Your task to perform on an android device: install app "McDonald's" Image 0: 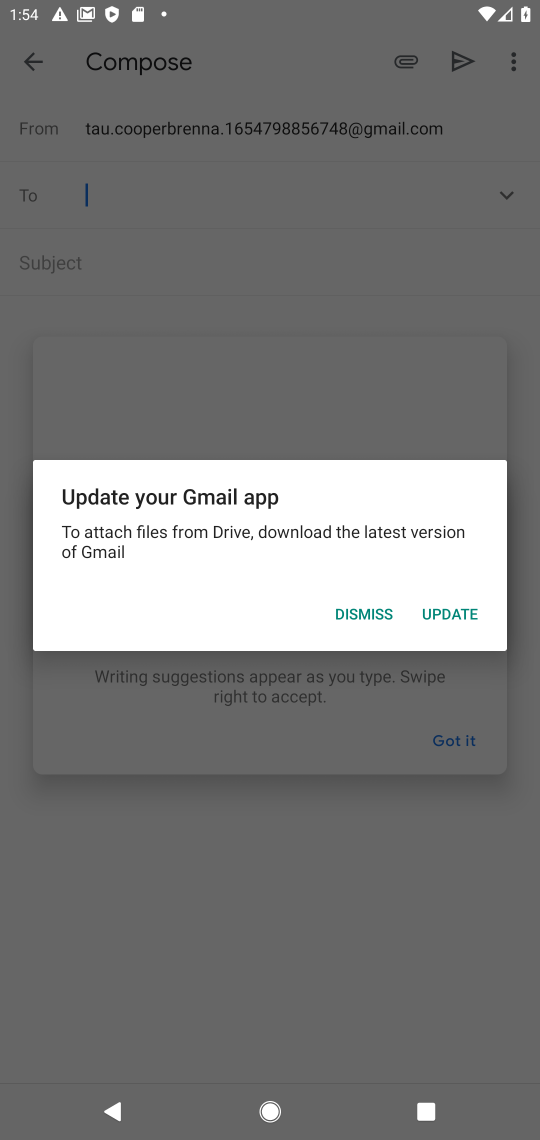
Step 0: press home button
Your task to perform on an android device: install app "McDonald's" Image 1: 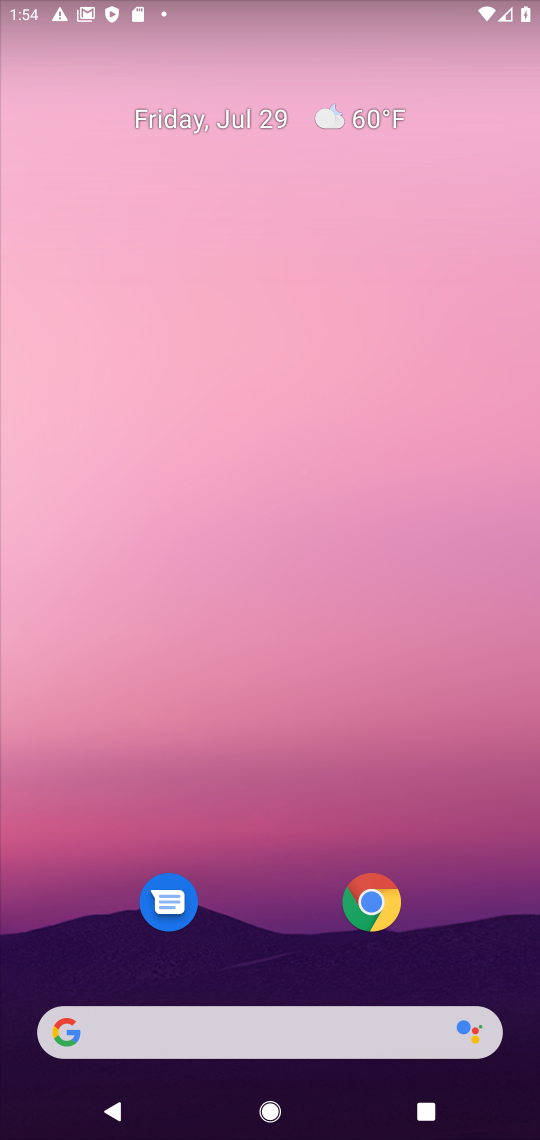
Step 1: drag from (325, 992) to (352, 141)
Your task to perform on an android device: install app "McDonald's" Image 2: 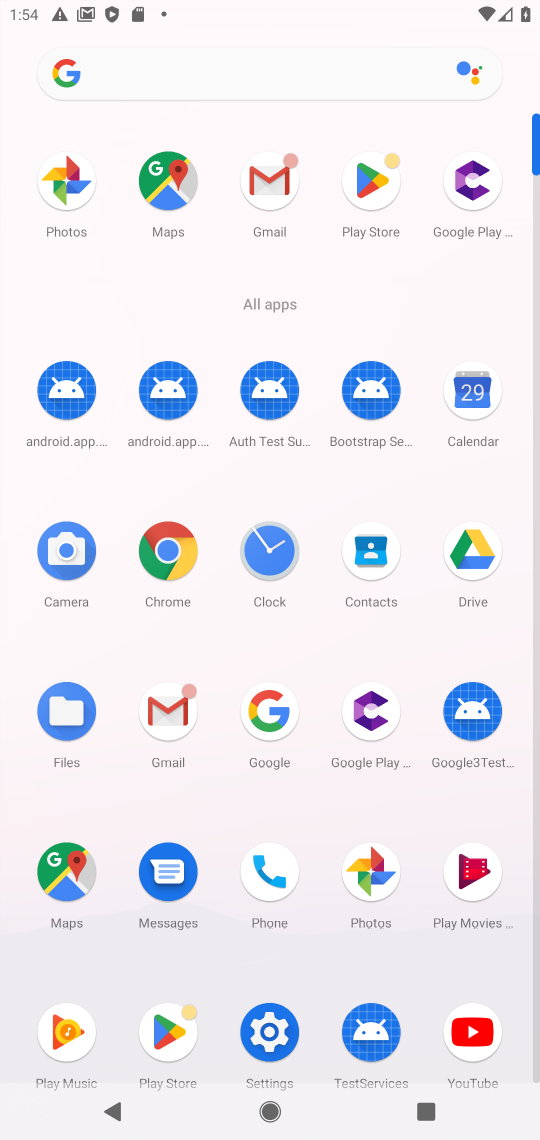
Step 2: click (179, 1030)
Your task to perform on an android device: install app "McDonald's" Image 3: 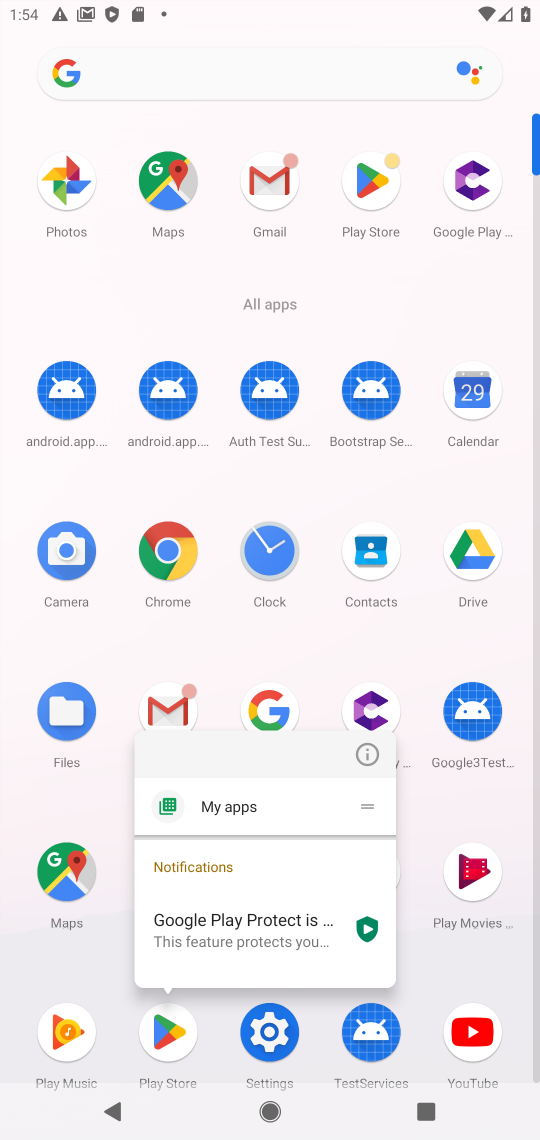
Step 3: click (370, 172)
Your task to perform on an android device: install app "McDonald's" Image 4: 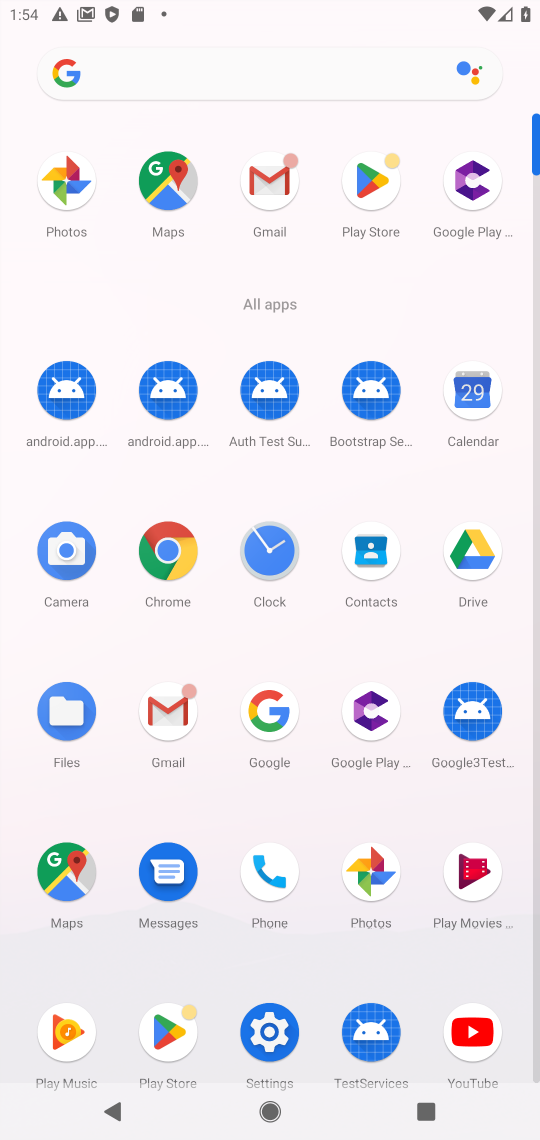
Step 4: click (366, 182)
Your task to perform on an android device: install app "McDonald's" Image 5: 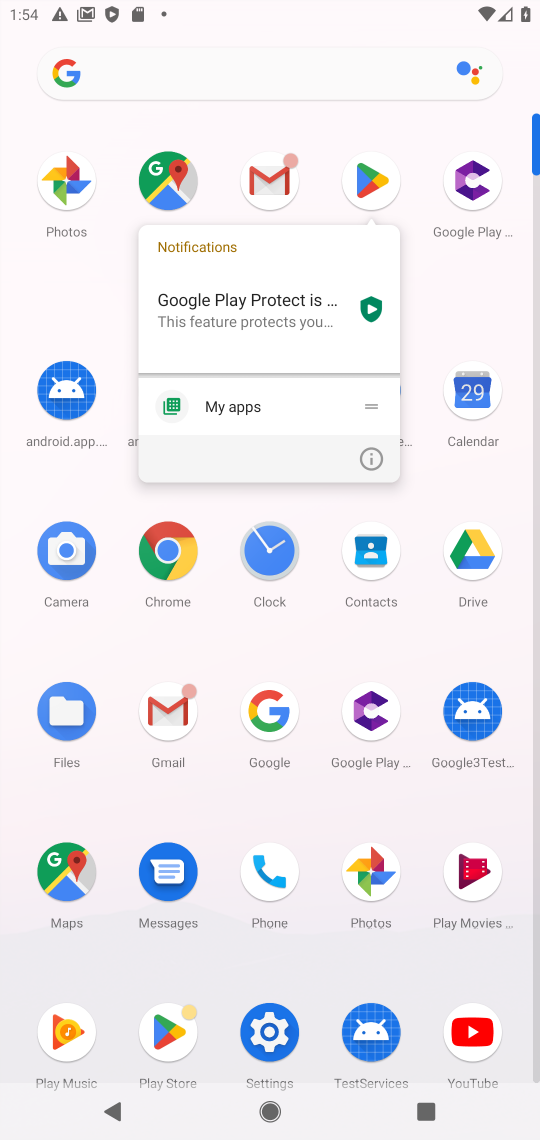
Step 5: click (367, 172)
Your task to perform on an android device: install app "McDonald's" Image 6: 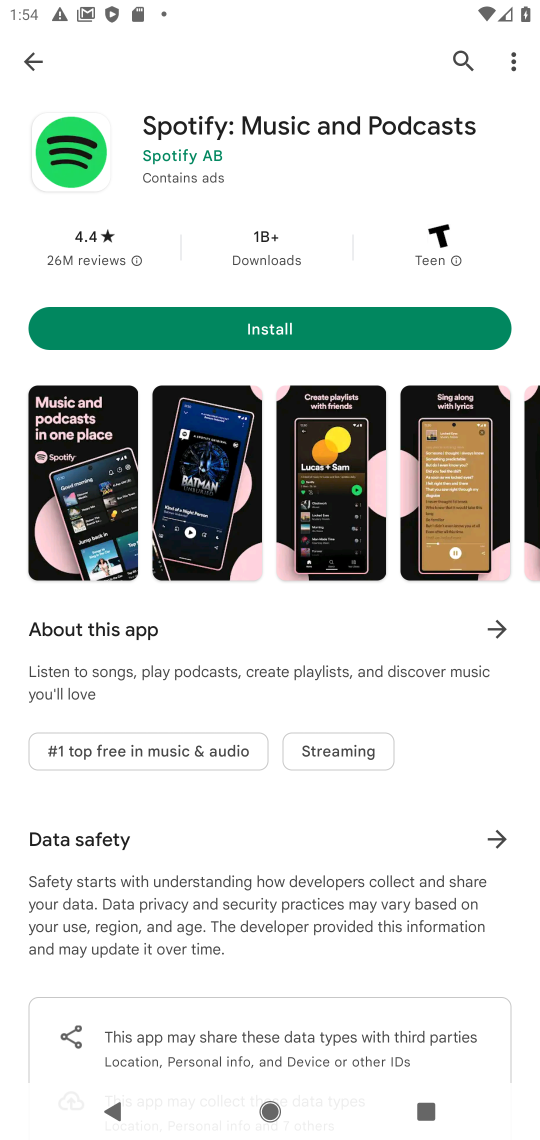
Step 6: click (31, 53)
Your task to perform on an android device: install app "McDonald's" Image 7: 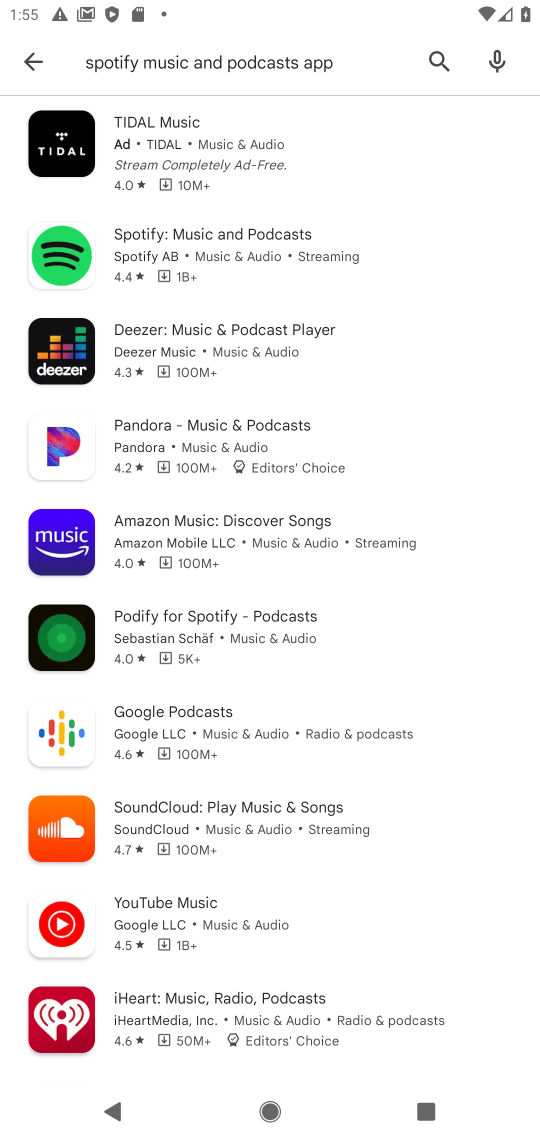
Step 7: click (26, 63)
Your task to perform on an android device: install app "McDonald's" Image 8: 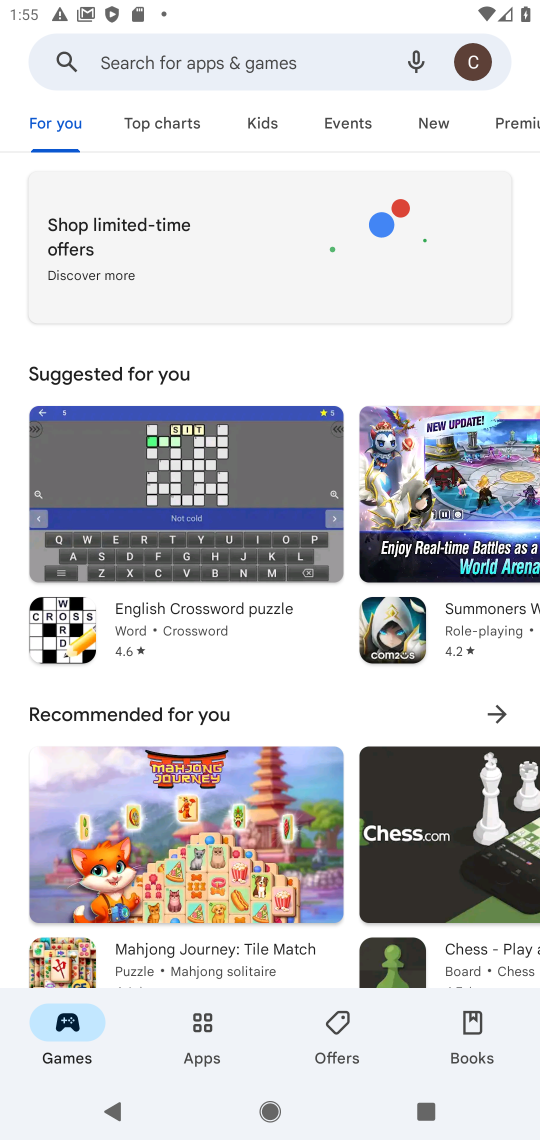
Step 8: click (193, 54)
Your task to perform on an android device: install app "McDonald's" Image 9: 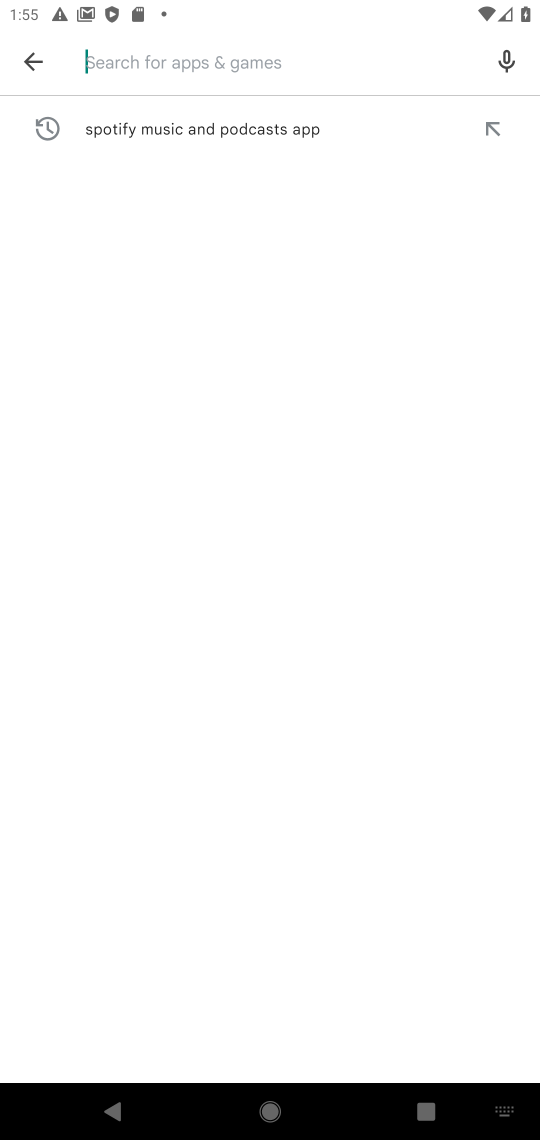
Step 9: type "McDonald's"
Your task to perform on an android device: install app "McDonald's" Image 10: 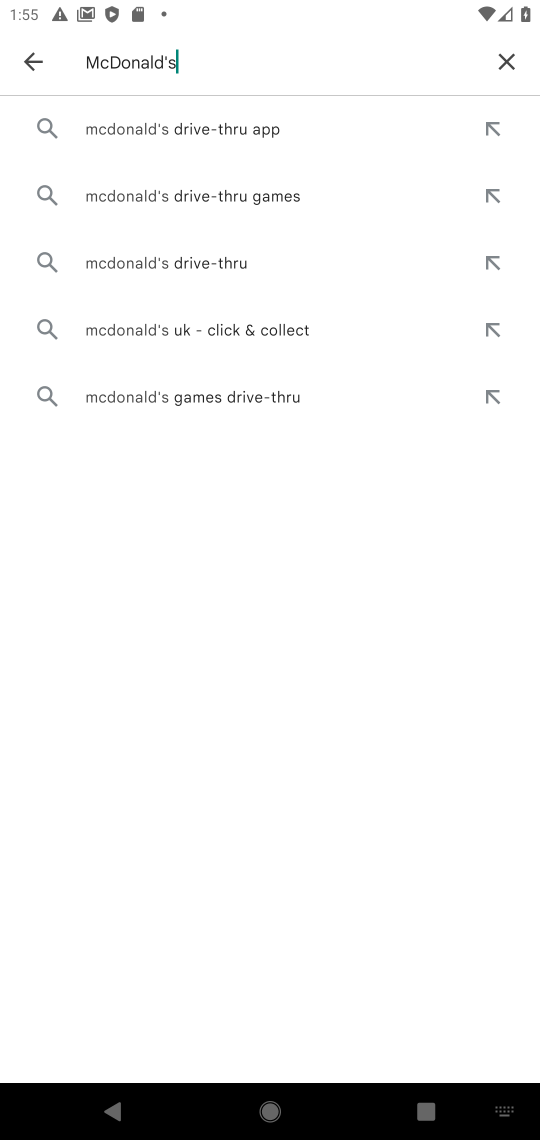
Step 10: click (216, 127)
Your task to perform on an android device: install app "McDonald's" Image 11: 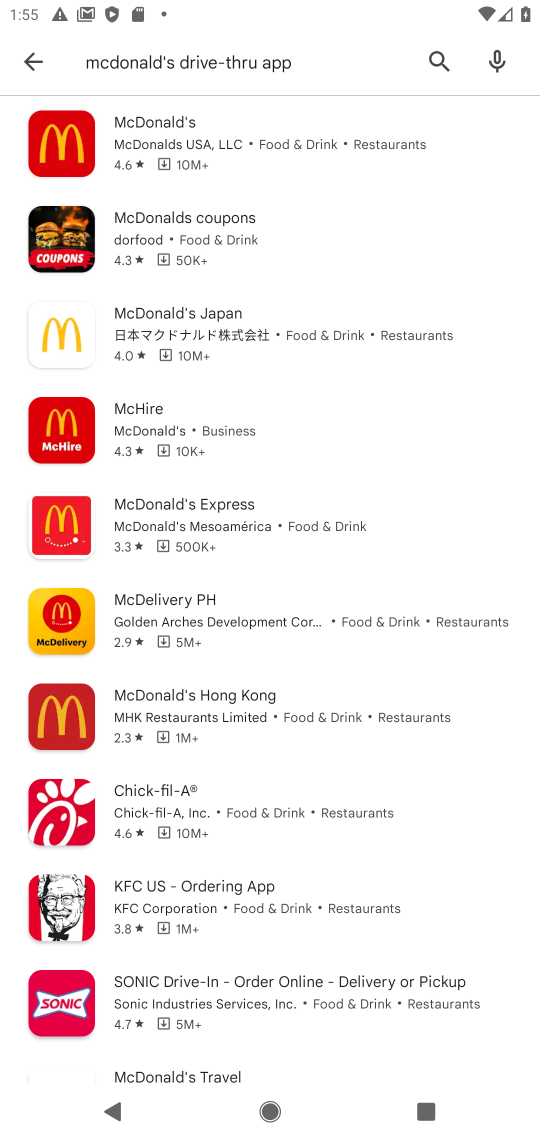
Step 11: click (216, 127)
Your task to perform on an android device: install app "McDonald's" Image 12: 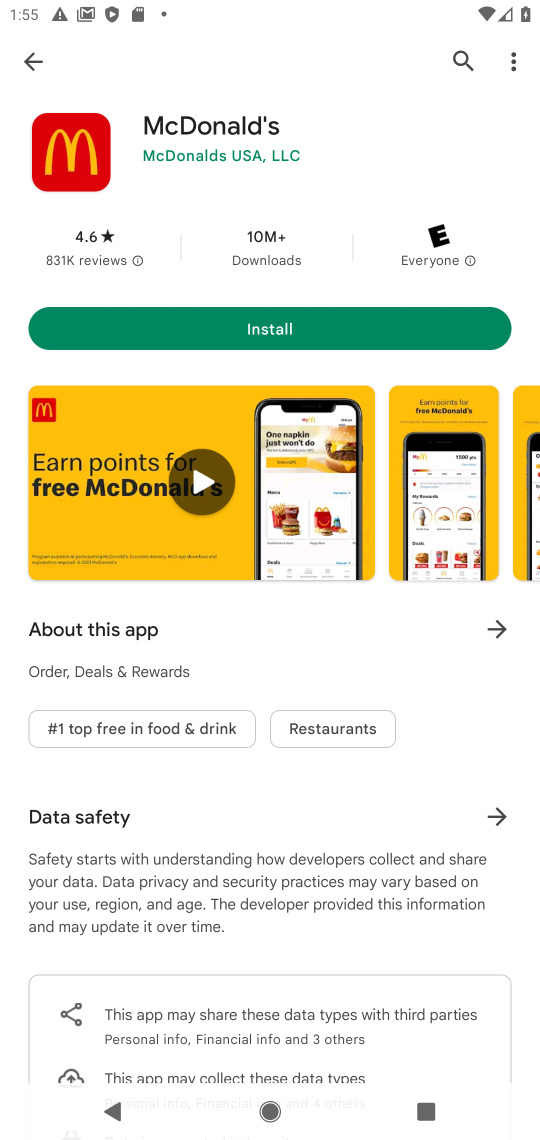
Step 12: click (270, 321)
Your task to perform on an android device: install app "McDonald's" Image 13: 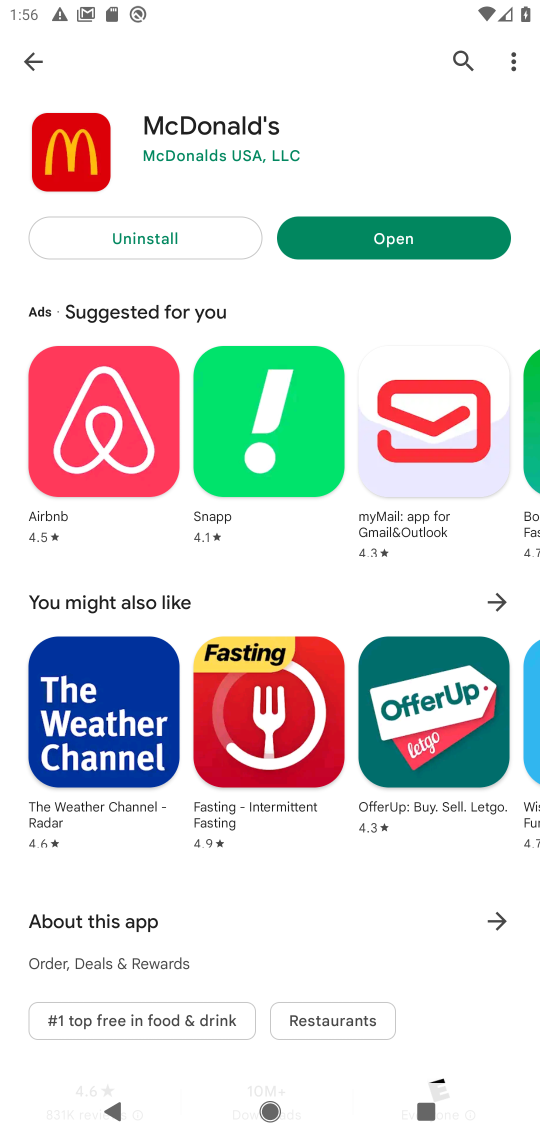
Step 13: click (369, 231)
Your task to perform on an android device: install app "McDonald's" Image 14: 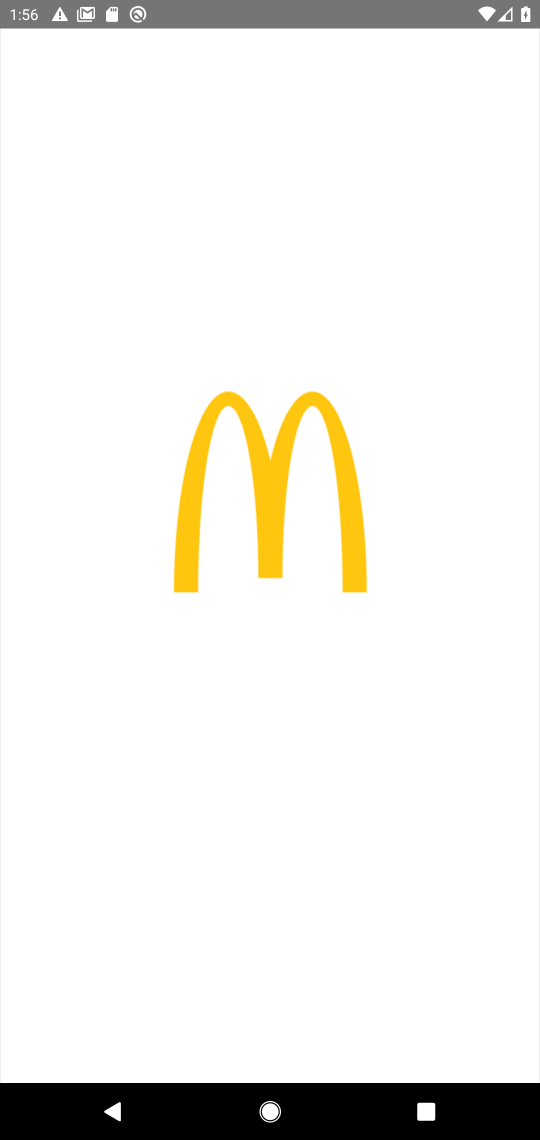
Step 14: task complete